Your task to perform on an android device: Open Google Image 0: 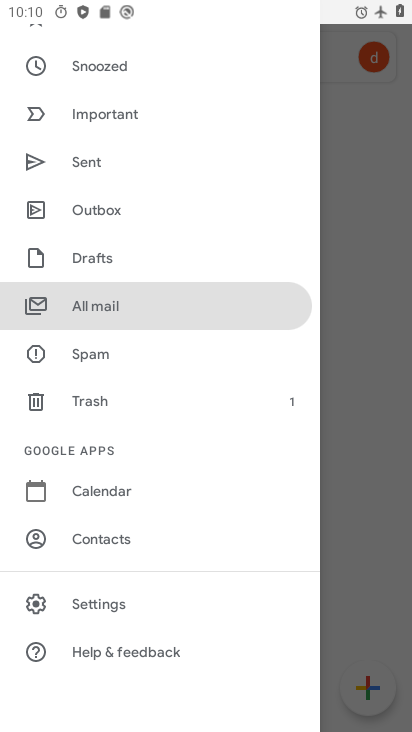
Step 0: press back button
Your task to perform on an android device: Open Google Image 1: 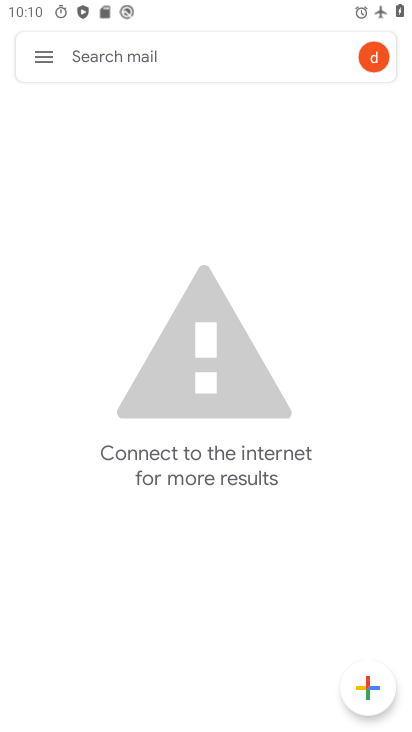
Step 1: press home button
Your task to perform on an android device: Open Google Image 2: 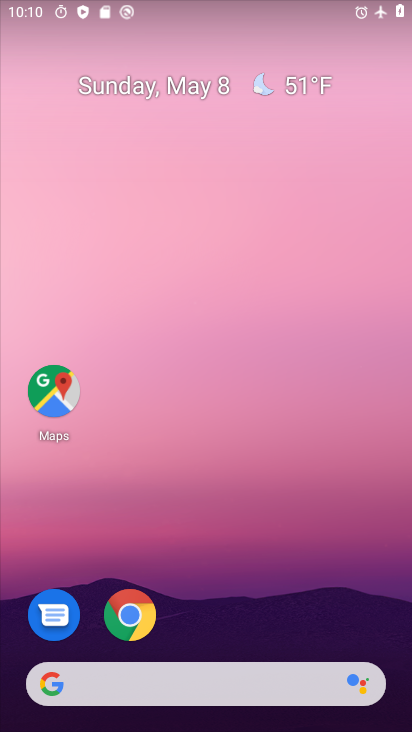
Step 2: drag from (233, 602) to (234, 104)
Your task to perform on an android device: Open Google Image 3: 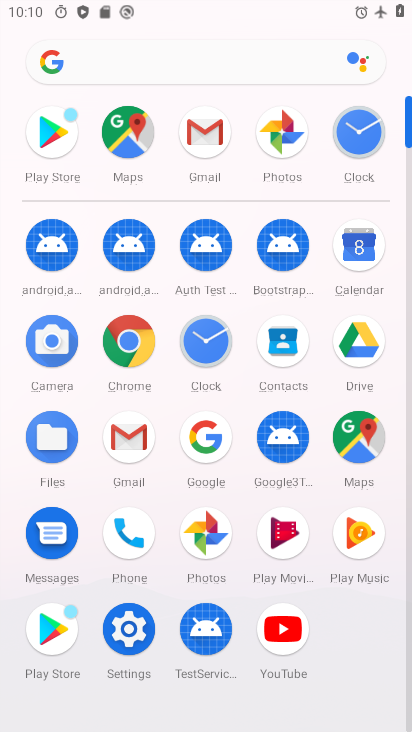
Step 3: click (209, 432)
Your task to perform on an android device: Open Google Image 4: 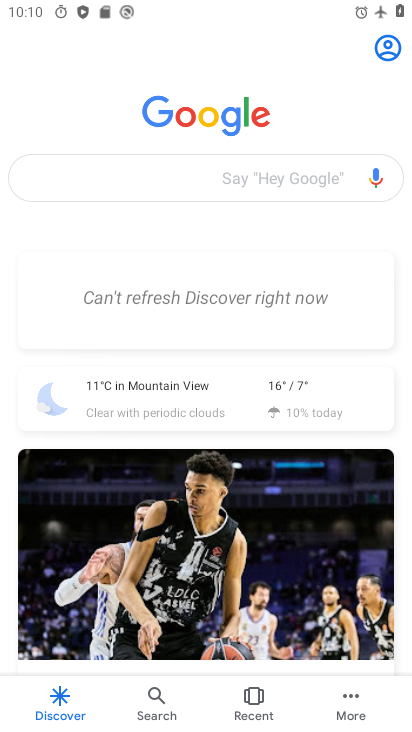
Step 4: task complete